Your task to perform on an android device: set an alarm Image 0: 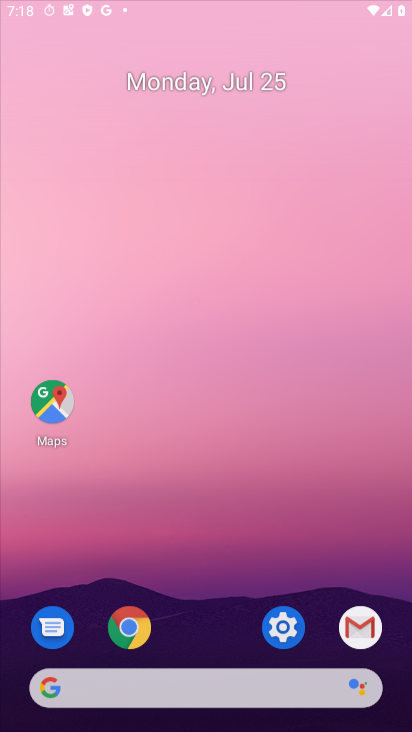
Step 0: click (284, 629)
Your task to perform on an android device: set an alarm Image 1: 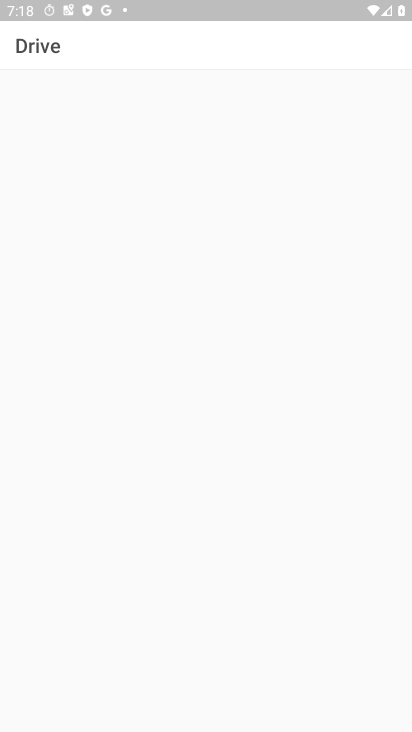
Step 1: press home button
Your task to perform on an android device: set an alarm Image 2: 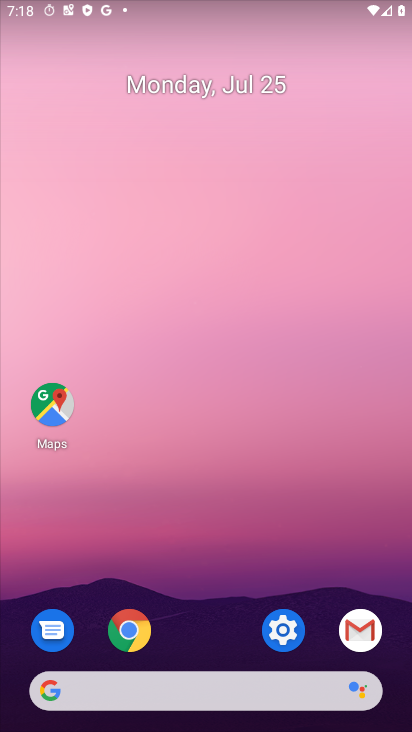
Step 2: drag from (219, 700) to (227, 122)
Your task to perform on an android device: set an alarm Image 3: 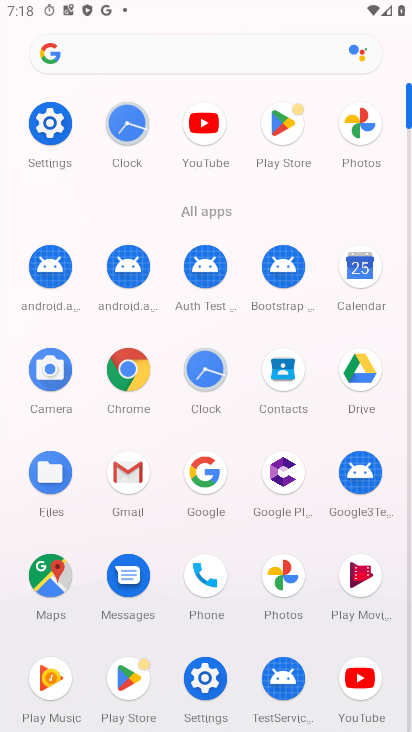
Step 3: click (219, 373)
Your task to perform on an android device: set an alarm Image 4: 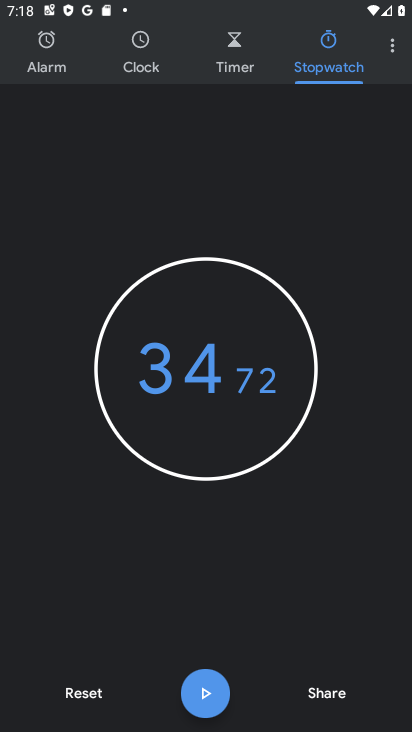
Step 4: click (59, 64)
Your task to perform on an android device: set an alarm Image 5: 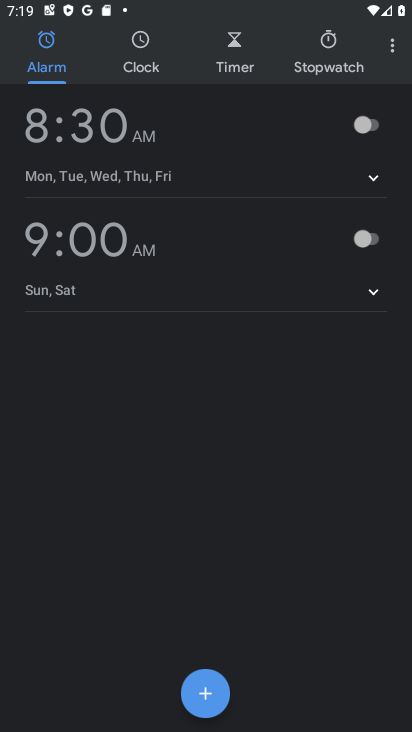
Step 5: click (386, 119)
Your task to perform on an android device: set an alarm Image 6: 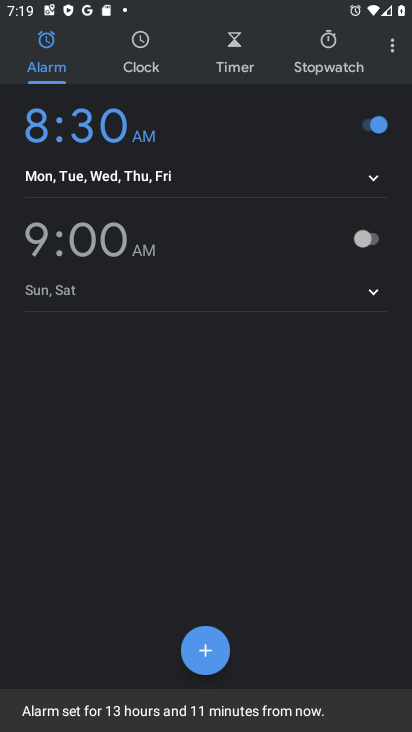
Step 6: task complete